Your task to perform on an android device: Go to CNN.com Image 0: 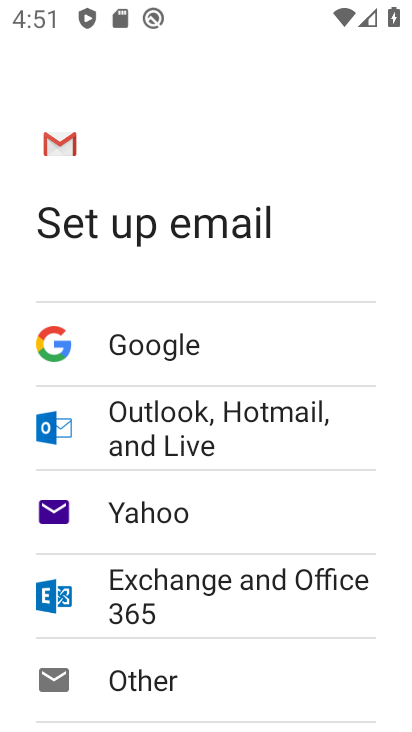
Step 0: press back button
Your task to perform on an android device: Go to CNN.com Image 1: 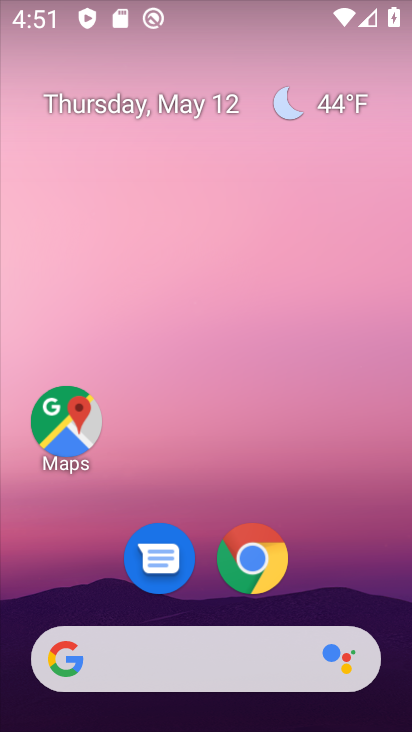
Step 1: drag from (295, 578) to (222, 47)
Your task to perform on an android device: Go to CNN.com Image 2: 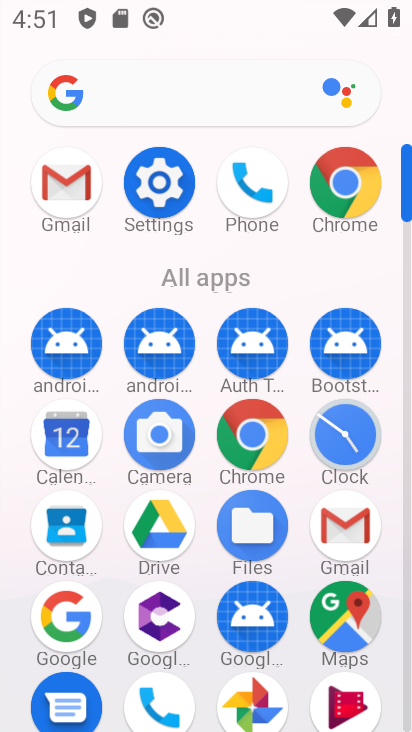
Step 2: click (341, 181)
Your task to perform on an android device: Go to CNN.com Image 3: 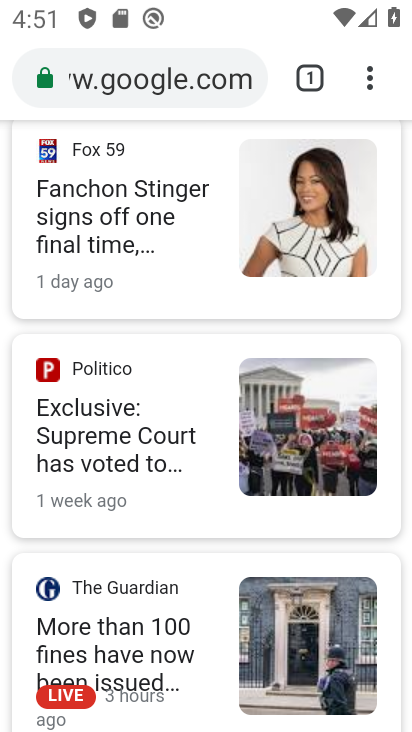
Step 3: click (158, 84)
Your task to perform on an android device: Go to CNN.com Image 4: 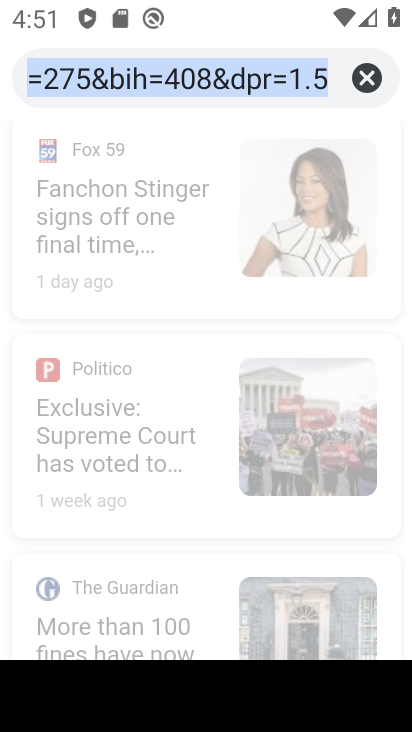
Step 4: click (361, 74)
Your task to perform on an android device: Go to CNN.com Image 5: 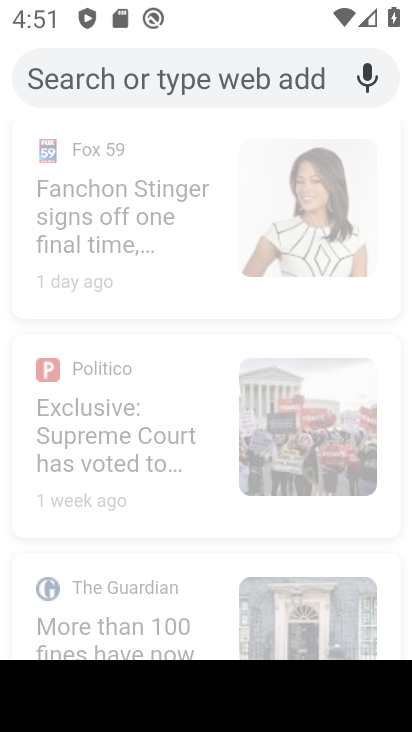
Step 5: type "CNN.com"
Your task to perform on an android device: Go to CNN.com Image 6: 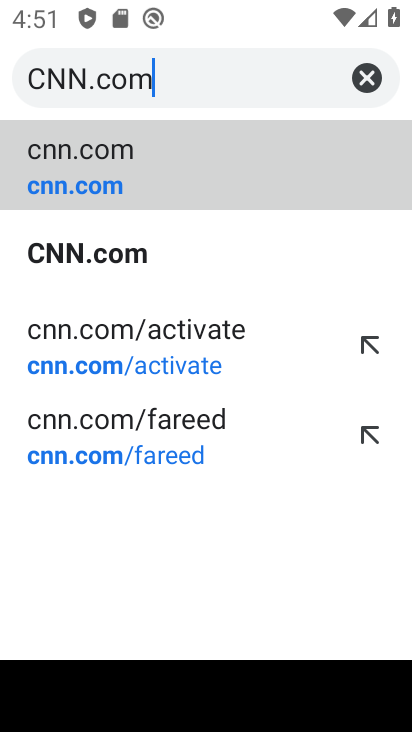
Step 6: type ""
Your task to perform on an android device: Go to CNN.com Image 7: 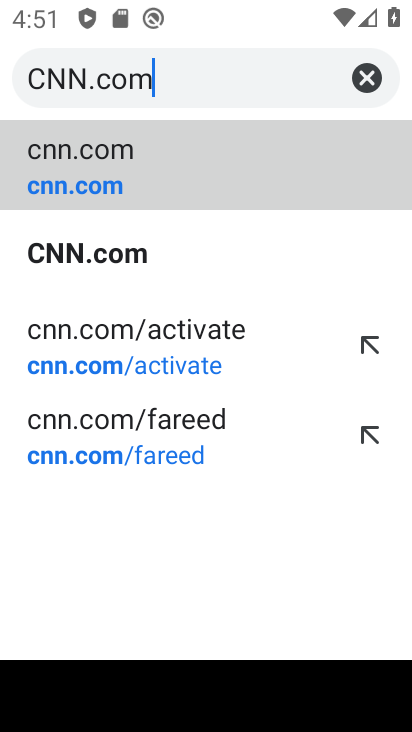
Step 7: click (134, 166)
Your task to perform on an android device: Go to CNN.com Image 8: 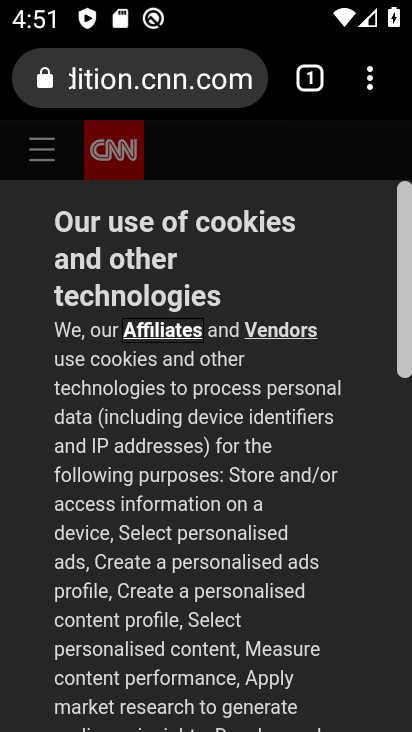
Step 8: task complete